Your task to perform on an android device: Go to CNN.com Image 0: 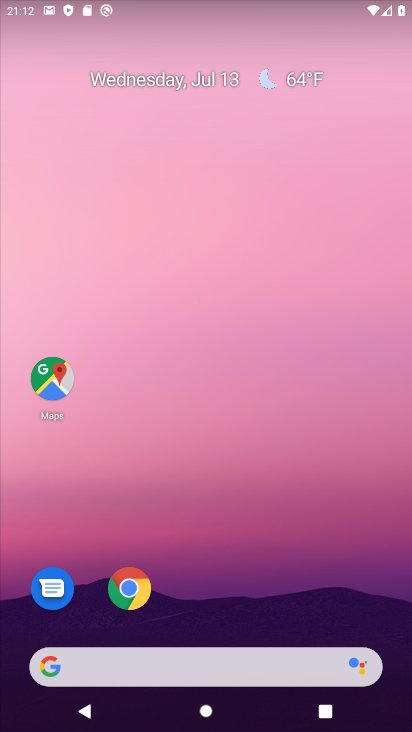
Step 0: click (127, 593)
Your task to perform on an android device: Go to CNN.com Image 1: 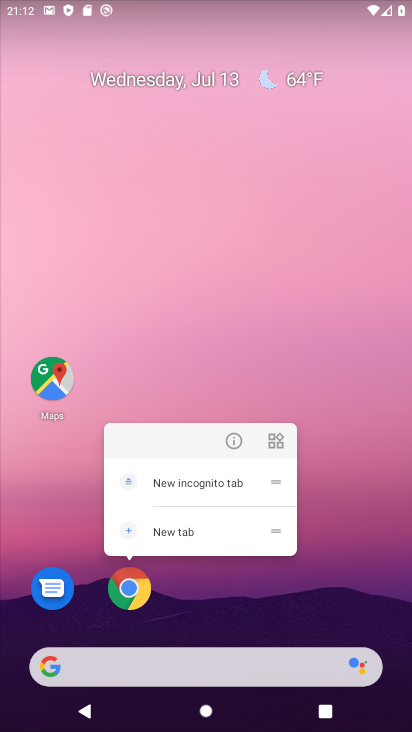
Step 1: click (138, 591)
Your task to perform on an android device: Go to CNN.com Image 2: 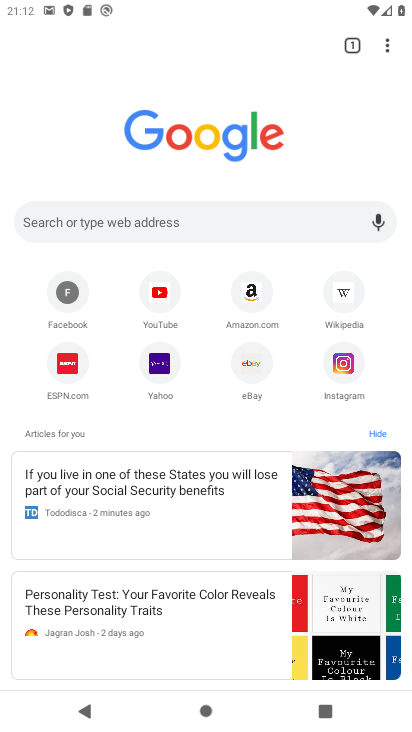
Step 2: click (135, 223)
Your task to perform on an android device: Go to CNN.com Image 3: 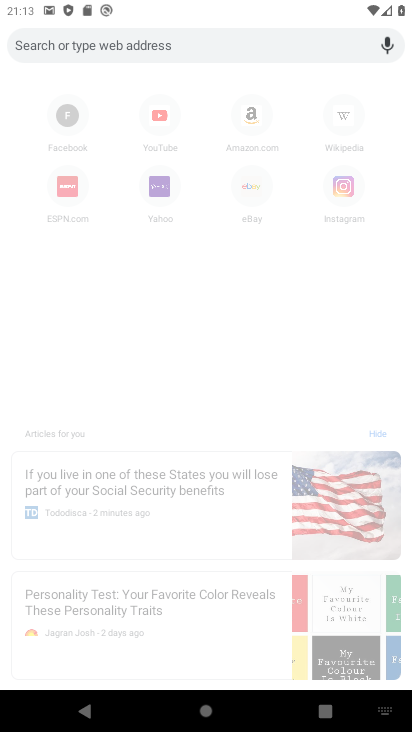
Step 3: click (61, 36)
Your task to perform on an android device: Go to CNN.com Image 4: 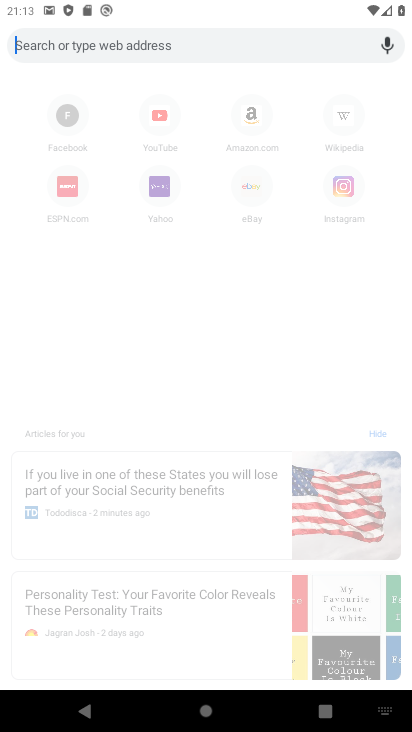
Step 4: click (131, 53)
Your task to perform on an android device: Go to CNN.com Image 5: 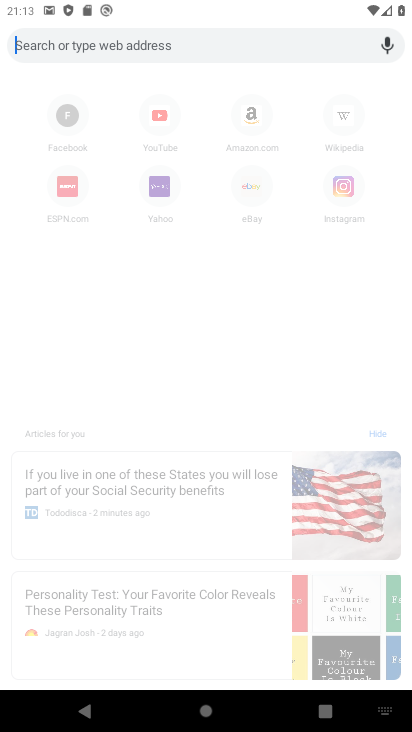
Step 5: type "cnn.com"
Your task to perform on an android device: Go to CNN.com Image 6: 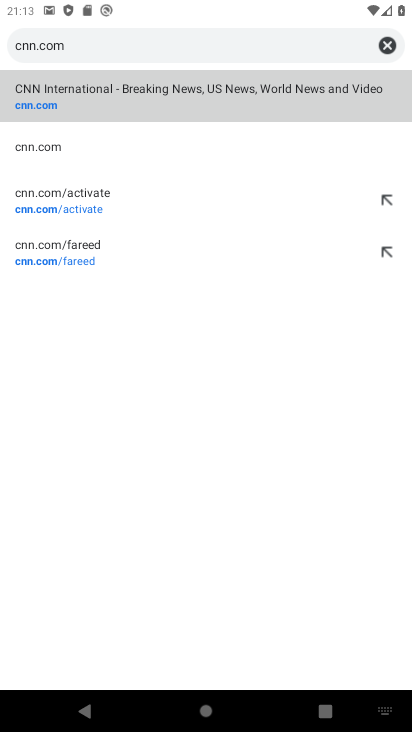
Step 6: click (66, 96)
Your task to perform on an android device: Go to CNN.com Image 7: 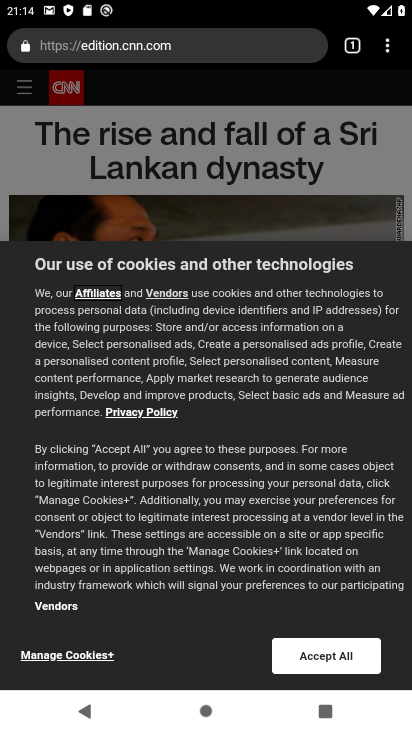
Step 7: task complete